Your task to perform on an android device: toggle pop-ups in chrome Image 0: 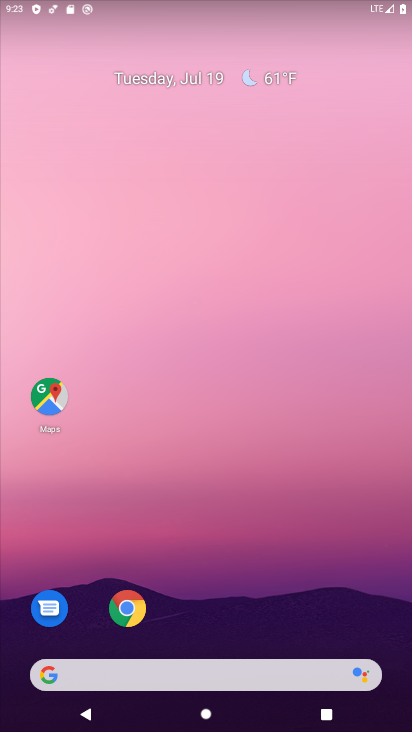
Step 0: click (131, 608)
Your task to perform on an android device: toggle pop-ups in chrome Image 1: 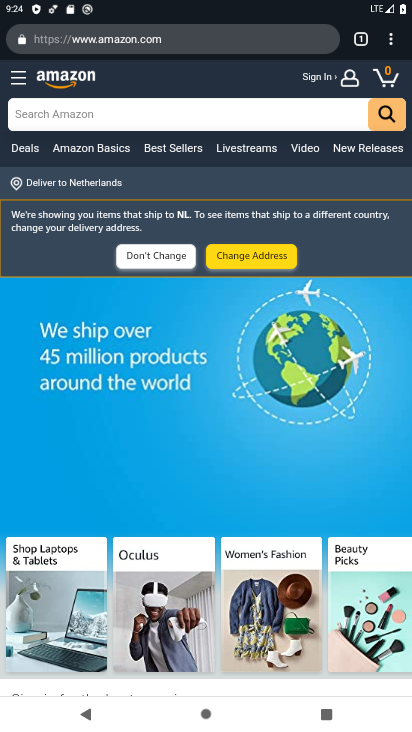
Step 1: click (394, 37)
Your task to perform on an android device: toggle pop-ups in chrome Image 2: 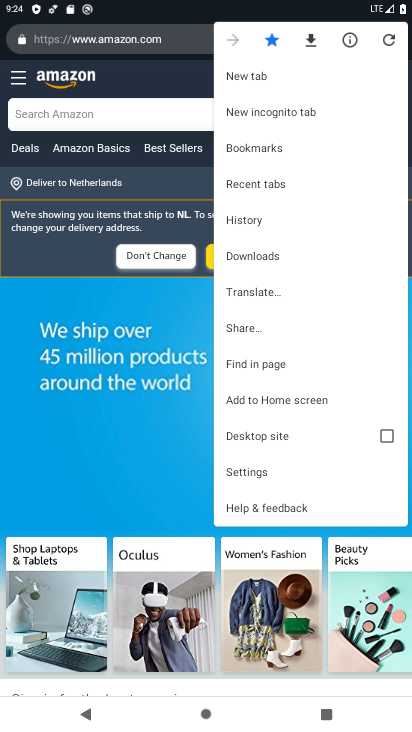
Step 2: click (261, 466)
Your task to perform on an android device: toggle pop-ups in chrome Image 3: 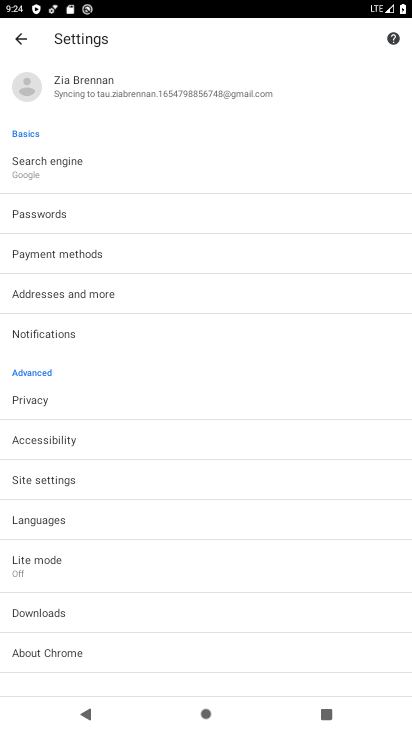
Step 3: click (42, 474)
Your task to perform on an android device: toggle pop-ups in chrome Image 4: 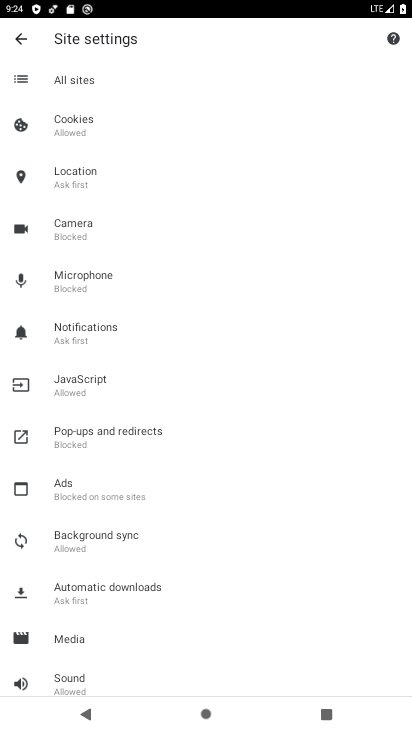
Step 4: click (76, 430)
Your task to perform on an android device: toggle pop-ups in chrome Image 5: 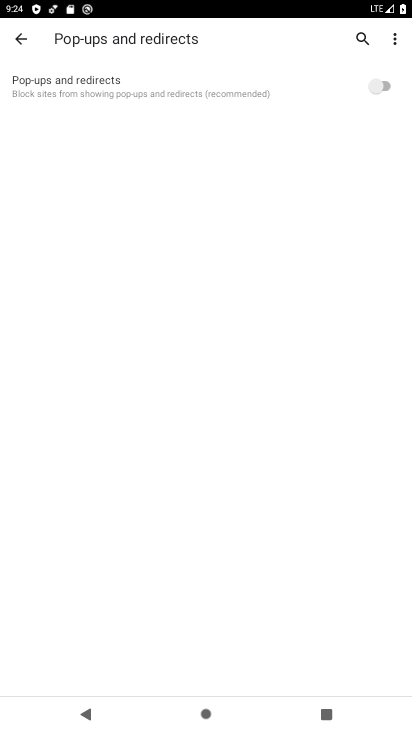
Step 5: click (381, 81)
Your task to perform on an android device: toggle pop-ups in chrome Image 6: 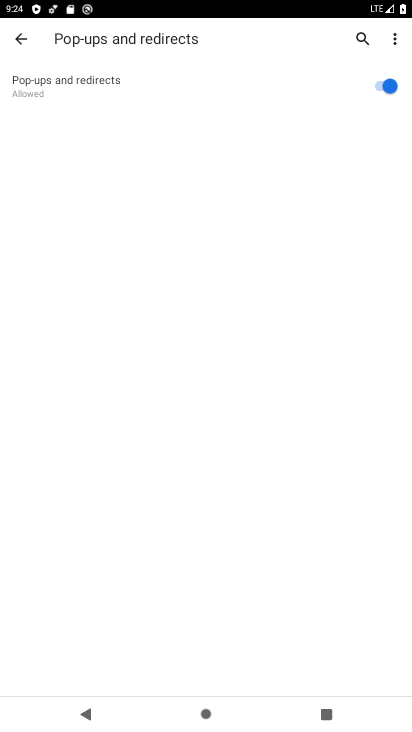
Step 6: task complete